Your task to perform on an android device: move a message to another label in the gmail app Image 0: 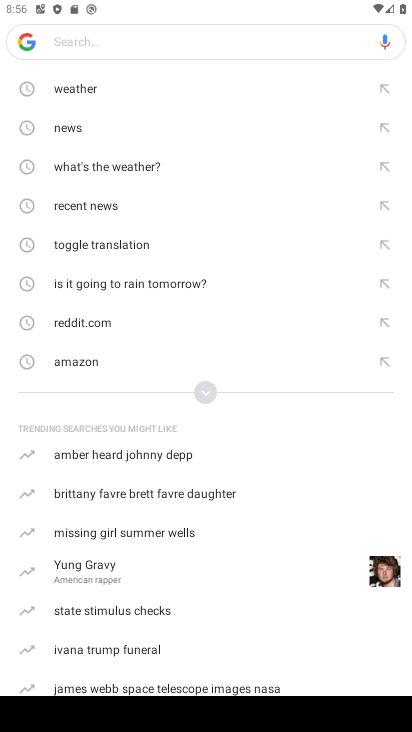
Step 0: press home button
Your task to perform on an android device: move a message to another label in the gmail app Image 1: 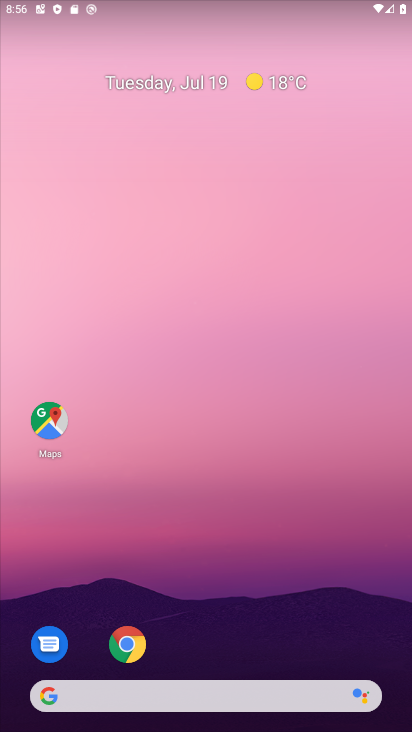
Step 1: drag from (218, 729) to (228, 260)
Your task to perform on an android device: move a message to another label in the gmail app Image 2: 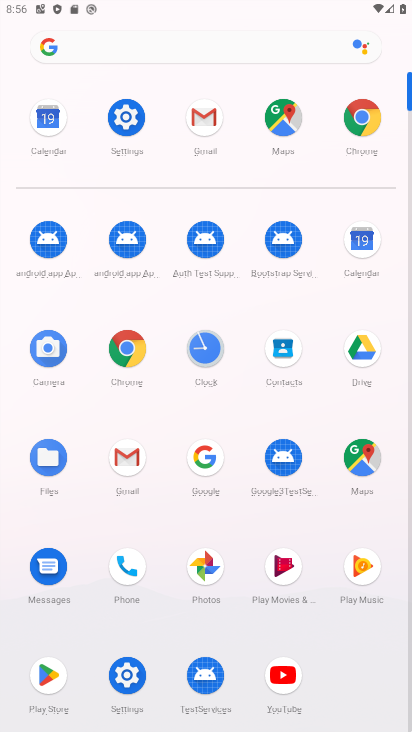
Step 2: click (125, 466)
Your task to perform on an android device: move a message to another label in the gmail app Image 3: 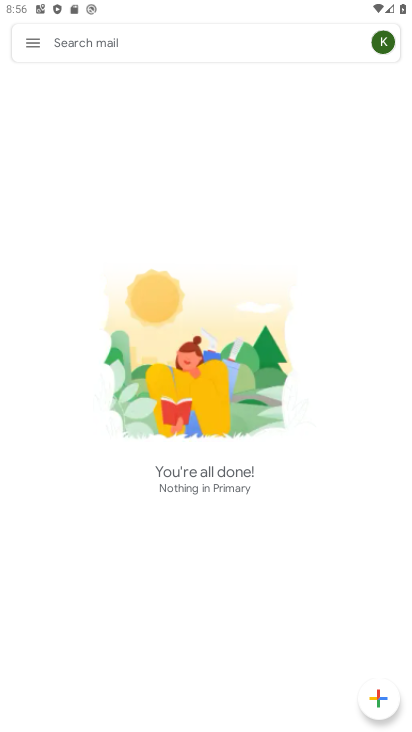
Step 3: task complete